Your task to perform on an android device: Empty the shopping cart on costco. Add "logitech g903" to the cart on costco Image 0: 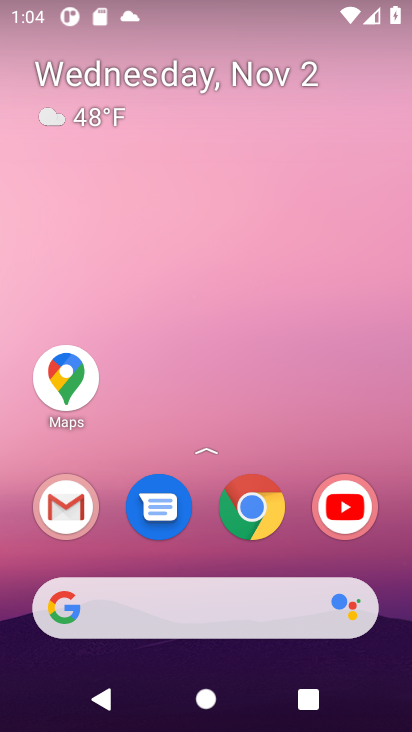
Step 0: click (241, 607)
Your task to perform on an android device: Empty the shopping cart on costco. Add "logitech g903" to the cart on costco Image 1: 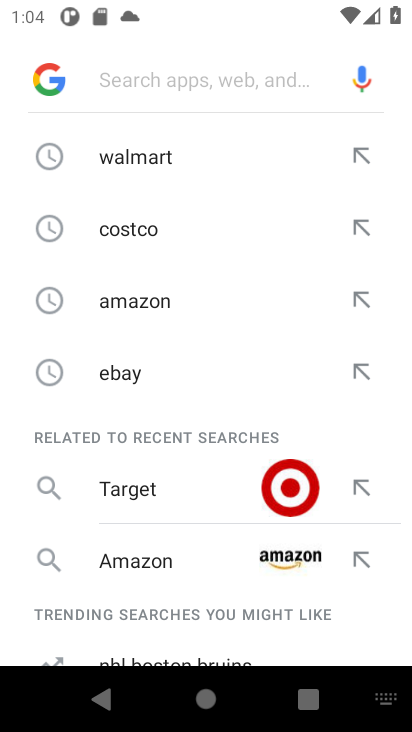
Step 1: click (130, 250)
Your task to perform on an android device: Empty the shopping cart on costco. Add "logitech g903" to the cart on costco Image 2: 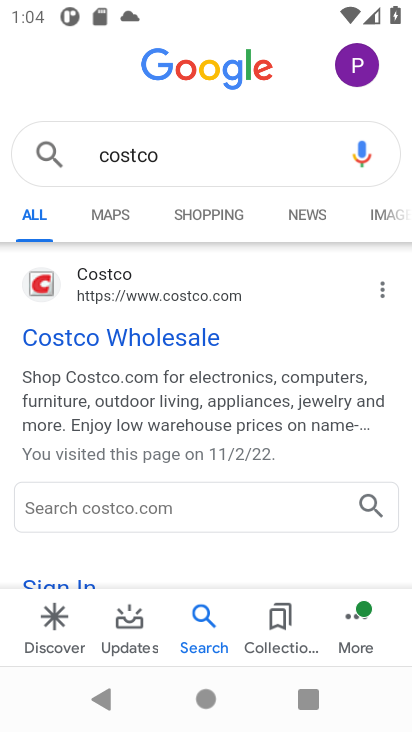
Step 2: click (120, 327)
Your task to perform on an android device: Empty the shopping cart on costco. Add "logitech g903" to the cart on costco Image 3: 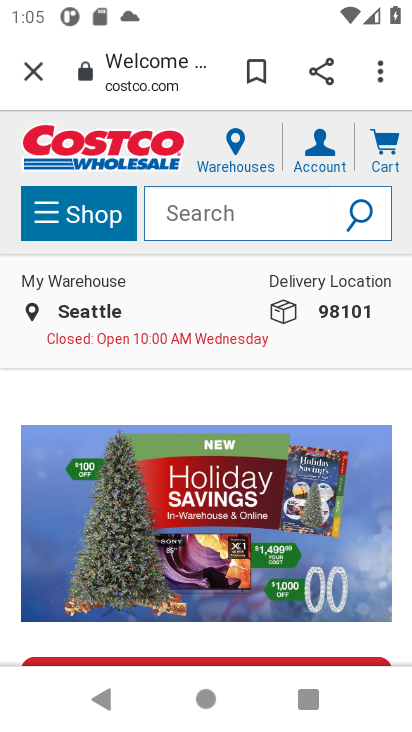
Step 3: click (256, 210)
Your task to perform on an android device: Empty the shopping cart on costco. Add "logitech g903" to the cart on costco Image 4: 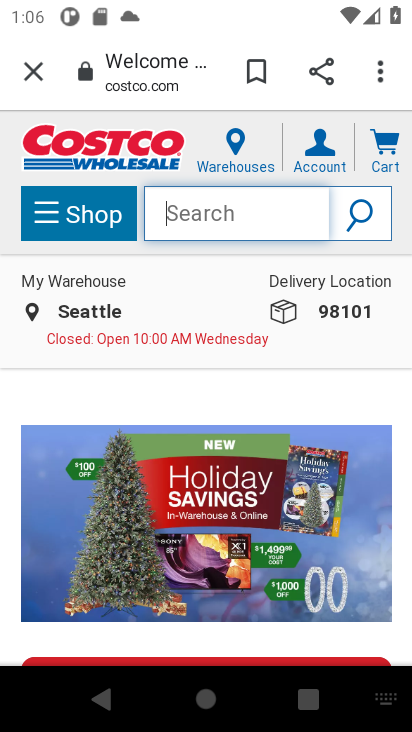
Step 4: click (187, 209)
Your task to perform on an android device: Empty the shopping cart on costco. Add "logitech g903" to the cart on costco Image 5: 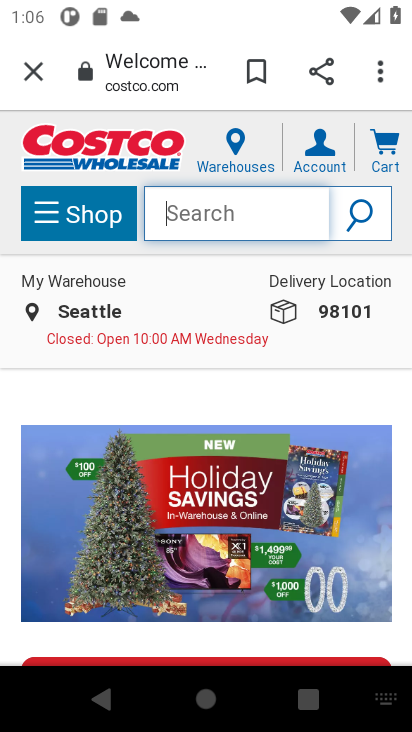
Step 5: type "logitech g903"
Your task to perform on an android device: Empty the shopping cart on costco. Add "logitech g903" to the cart on costco Image 6: 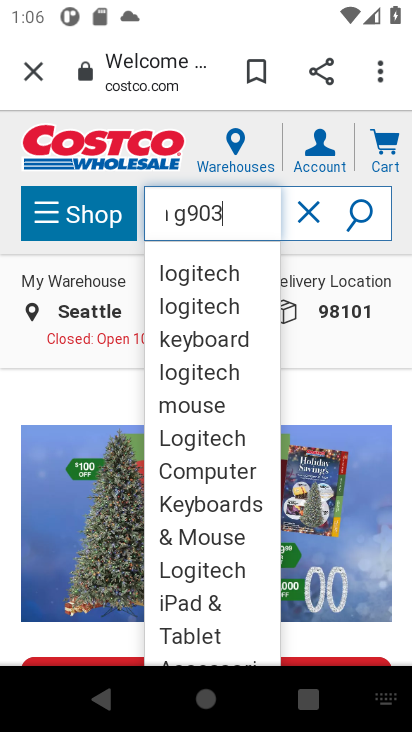
Step 6: click (353, 216)
Your task to perform on an android device: Empty the shopping cart on costco. Add "logitech g903" to the cart on costco Image 7: 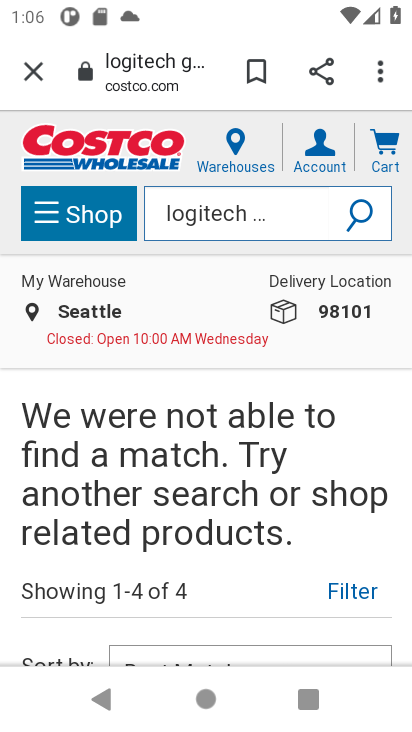
Step 7: drag from (205, 533) to (217, 286)
Your task to perform on an android device: Empty the shopping cart on costco. Add "logitech g903" to the cart on costco Image 8: 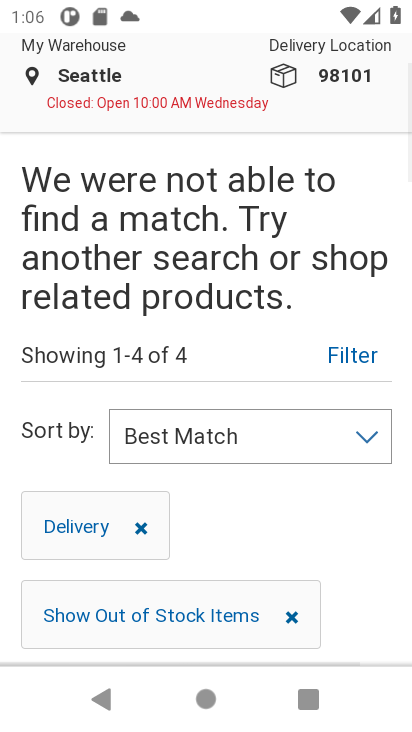
Step 8: drag from (197, 549) to (209, 246)
Your task to perform on an android device: Empty the shopping cart on costco. Add "logitech g903" to the cart on costco Image 9: 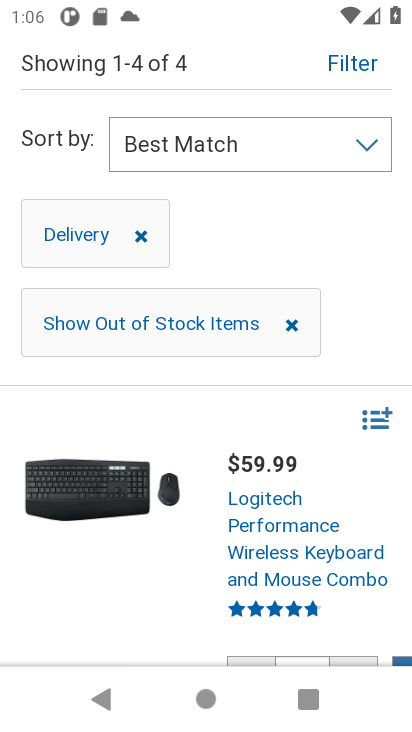
Step 9: click (254, 495)
Your task to perform on an android device: Empty the shopping cart on costco. Add "logitech g903" to the cart on costco Image 10: 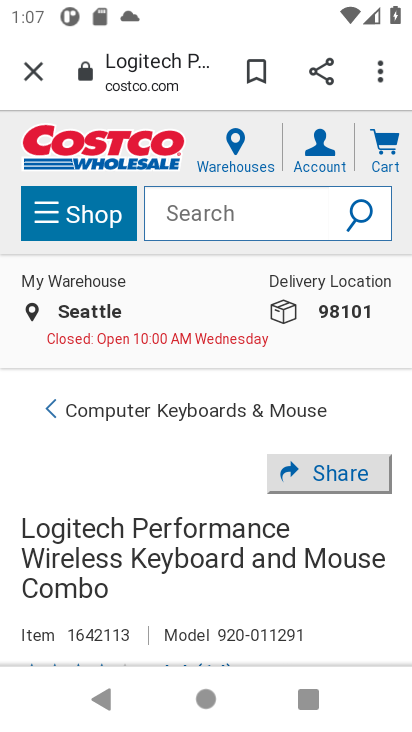
Step 10: drag from (212, 560) to (223, 290)
Your task to perform on an android device: Empty the shopping cart on costco. Add "logitech g903" to the cart on costco Image 11: 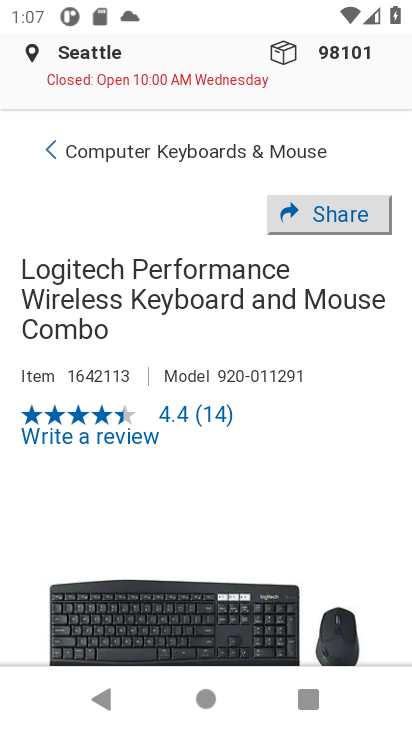
Step 11: drag from (223, 511) to (252, 214)
Your task to perform on an android device: Empty the shopping cart on costco. Add "logitech g903" to the cart on costco Image 12: 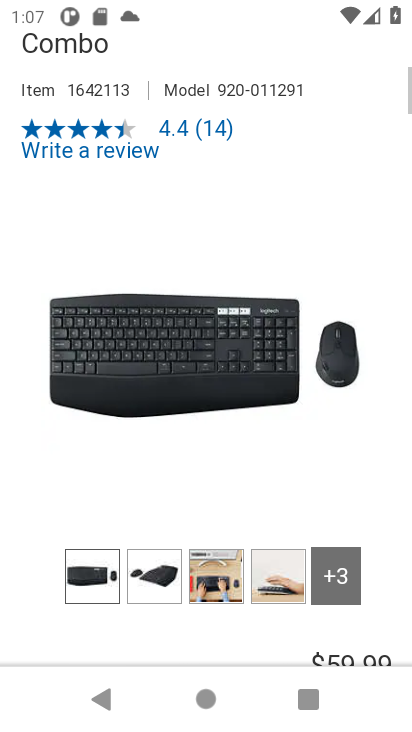
Step 12: drag from (249, 449) to (238, 269)
Your task to perform on an android device: Empty the shopping cart on costco. Add "logitech g903" to the cart on costco Image 13: 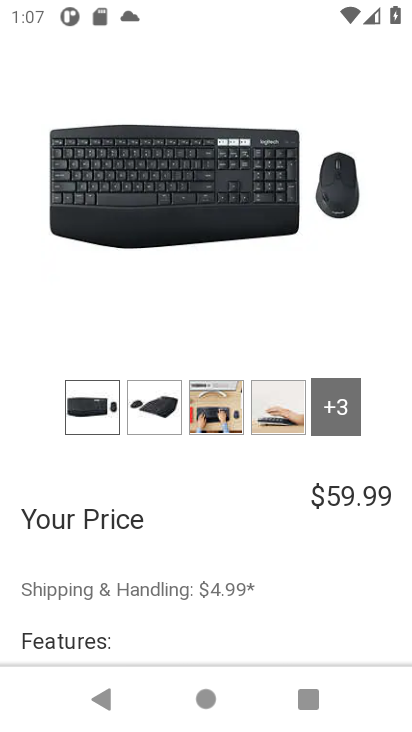
Step 13: drag from (240, 484) to (241, 154)
Your task to perform on an android device: Empty the shopping cart on costco. Add "logitech g903" to the cart on costco Image 14: 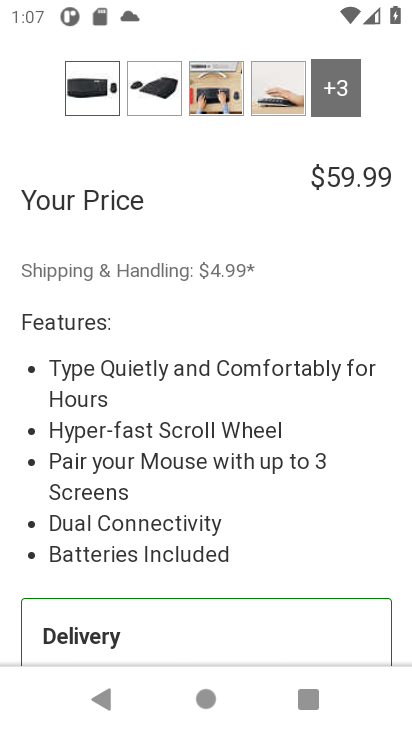
Step 14: drag from (204, 476) to (216, 169)
Your task to perform on an android device: Empty the shopping cart on costco. Add "logitech g903" to the cart on costco Image 15: 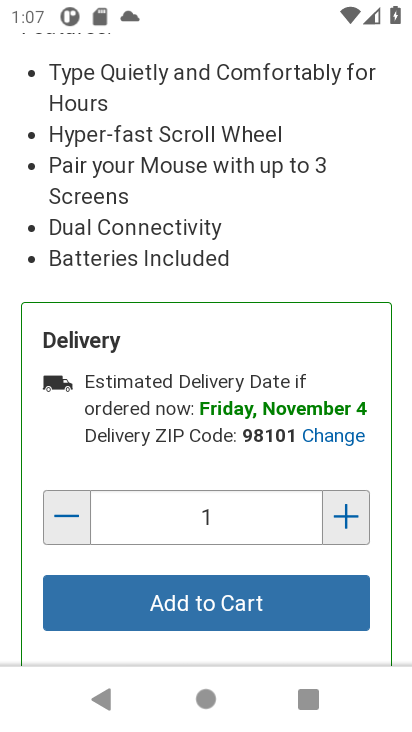
Step 15: click (247, 607)
Your task to perform on an android device: Empty the shopping cart on costco. Add "logitech g903" to the cart on costco Image 16: 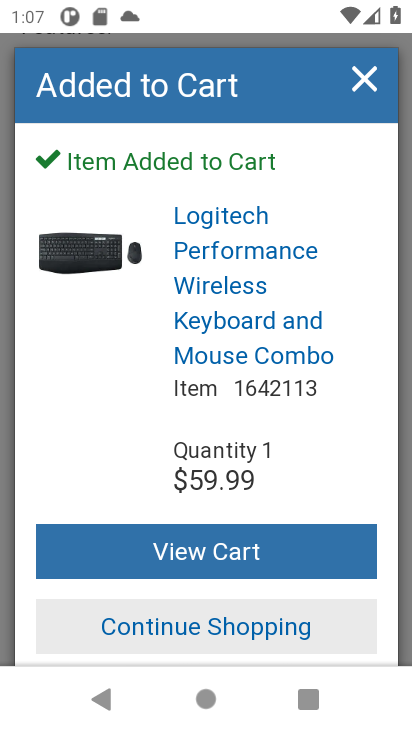
Step 16: task complete